Your task to perform on an android device: When is my next meeting? Image 0: 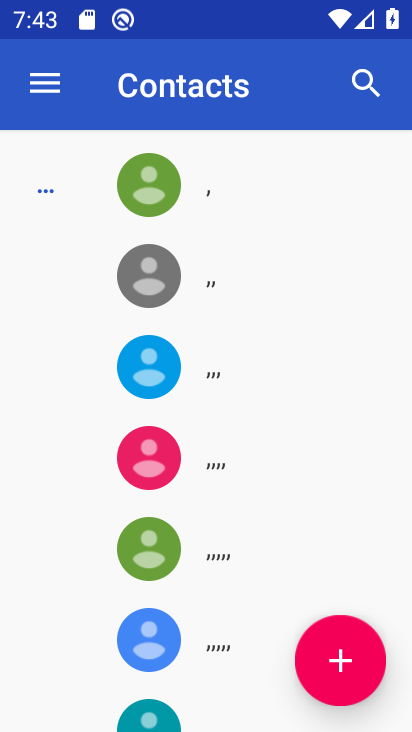
Step 0: press home button
Your task to perform on an android device: When is my next meeting? Image 1: 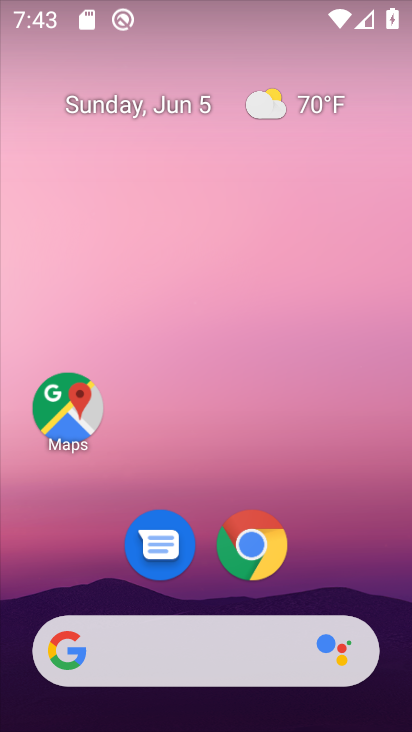
Step 1: drag from (242, 627) to (284, 254)
Your task to perform on an android device: When is my next meeting? Image 2: 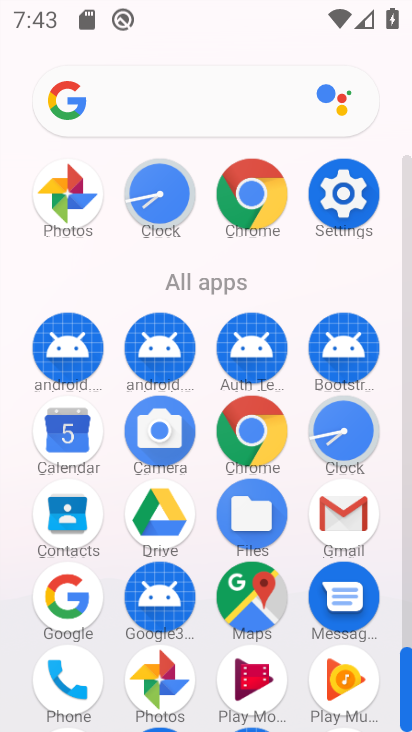
Step 2: click (60, 448)
Your task to perform on an android device: When is my next meeting? Image 3: 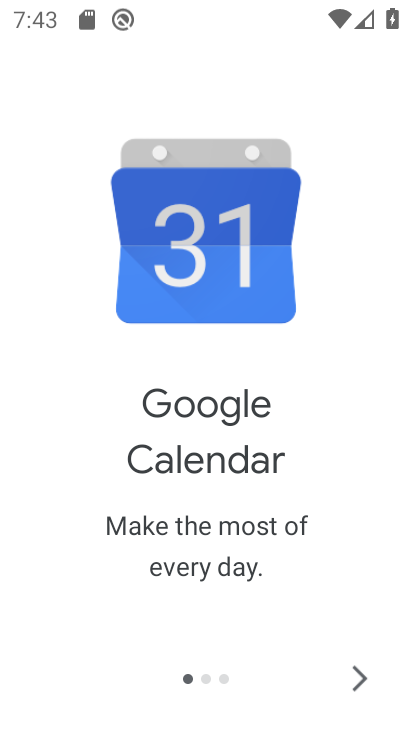
Step 3: click (360, 682)
Your task to perform on an android device: When is my next meeting? Image 4: 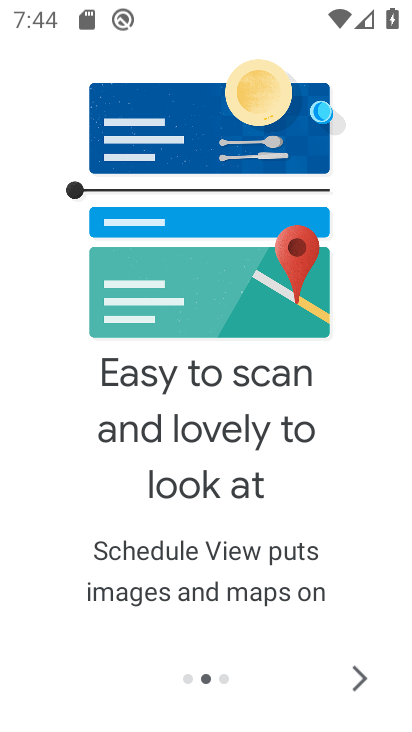
Step 4: click (354, 694)
Your task to perform on an android device: When is my next meeting? Image 5: 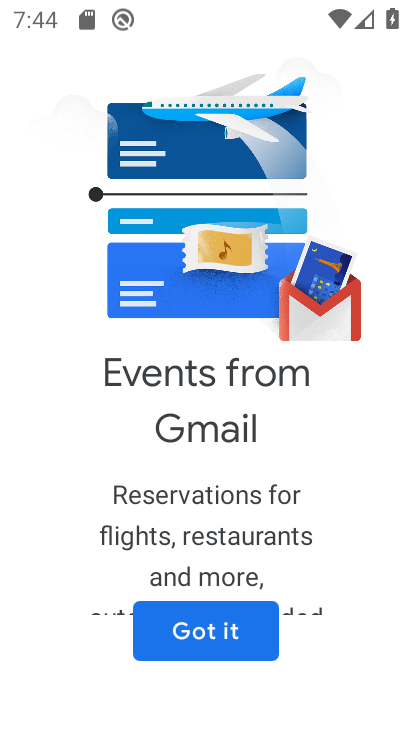
Step 5: click (261, 643)
Your task to perform on an android device: When is my next meeting? Image 6: 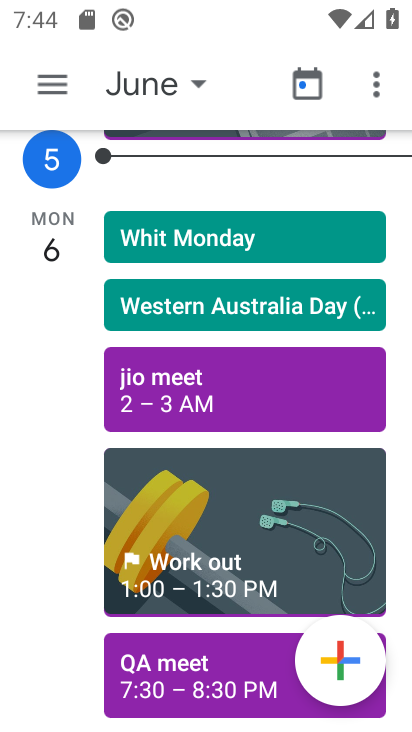
Step 6: click (59, 83)
Your task to perform on an android device: When is my next meeting? Image 7: 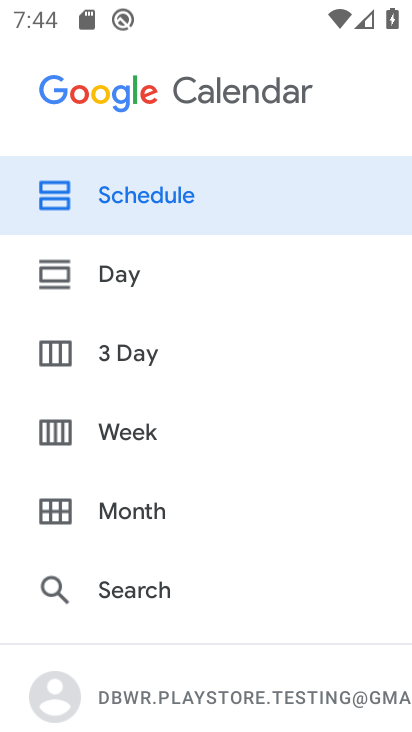
Step 7: drag from (157, 525) to (194, 236)
Your task to perform on an android device: When is my next meeting? Image 8: 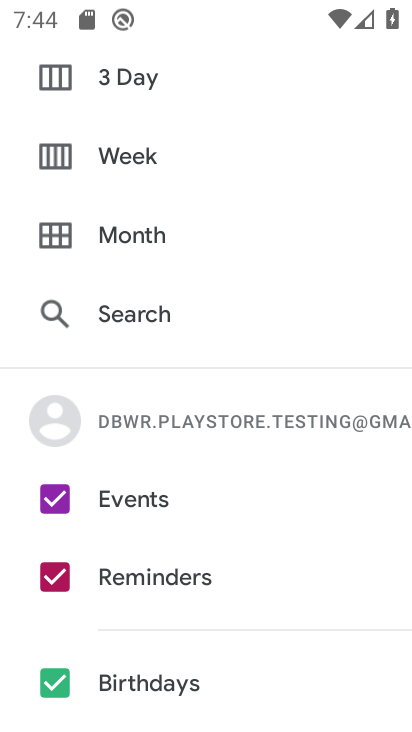
Step 8: drag from (168, 655) to (205, 378)
Your task to perform on an android device: When is my next meeting? Image 9: 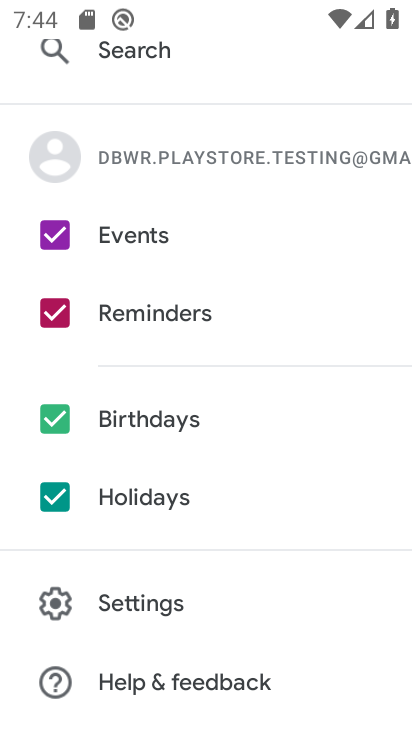
Step 9: click (53, 497)
Your task to perform on an android device: When is my next meeting? Image 10: 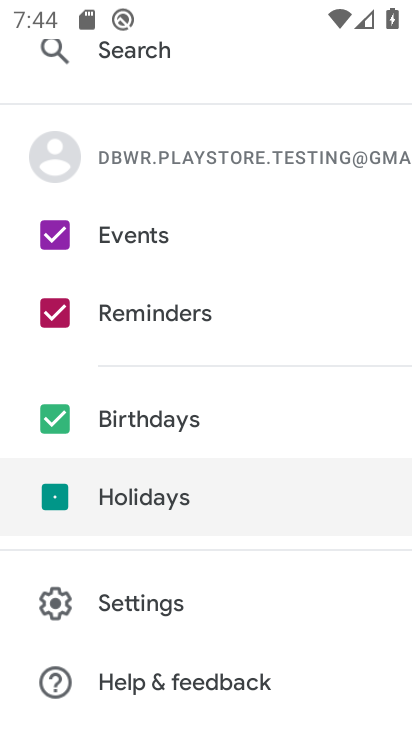
Step 10: click (61, 425)
Your task to perform on an android device: When is my next meeting? Image 11: 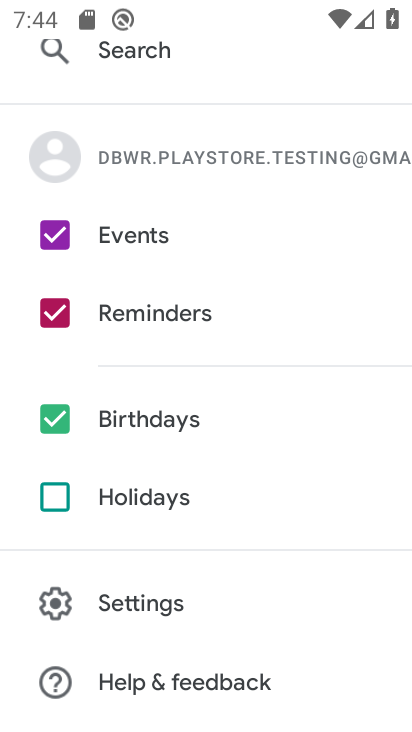
Step 11: click (66, 428)
Your task to perform on an android device: When is my next meeting? Image 12: 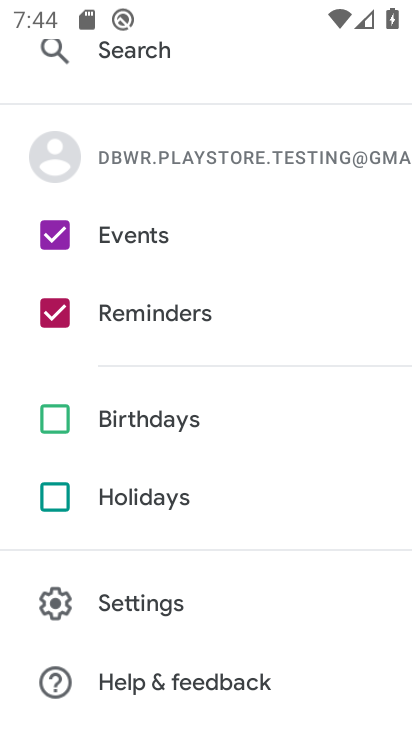
Step 12: task complete